Your task to perform on an android device: add a contact Image 0: 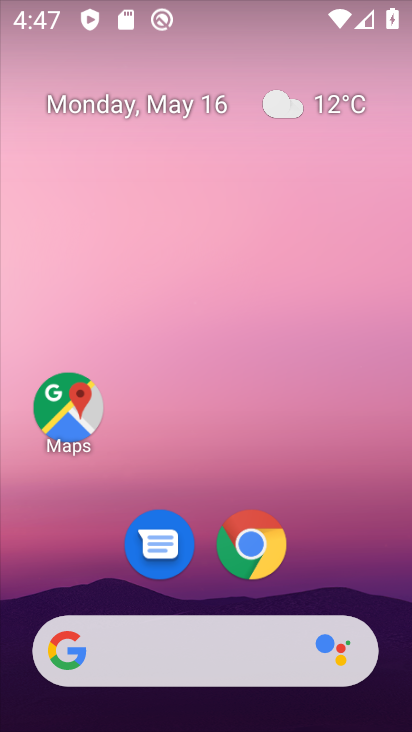
Step 0: drag from (332, 571) to (248, 12)
Your task to perform on an android device: add a contact Image 1: 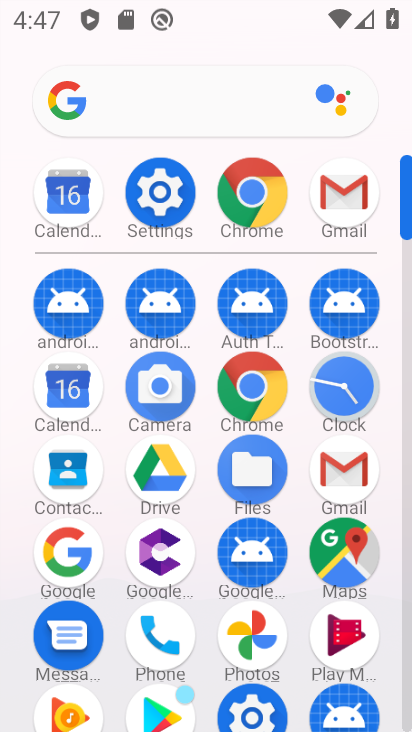
Step 1: drag from (213, 524) to (208, 342)
Your task to perform on an android device: add a contact Image 2: 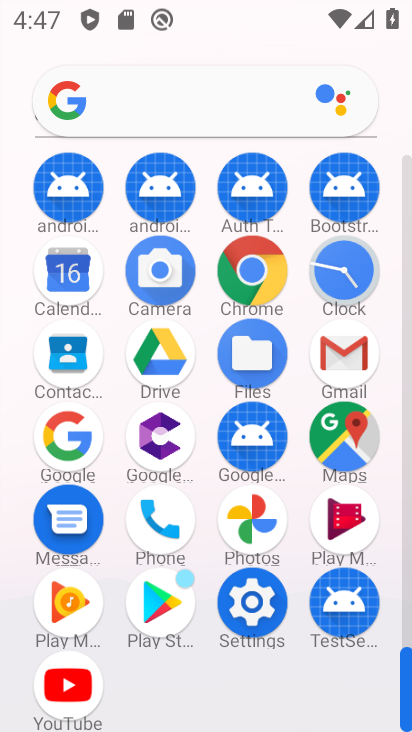
Step 2: click (66, 352)
Your task to perform on an android device: add a contact Image 3: 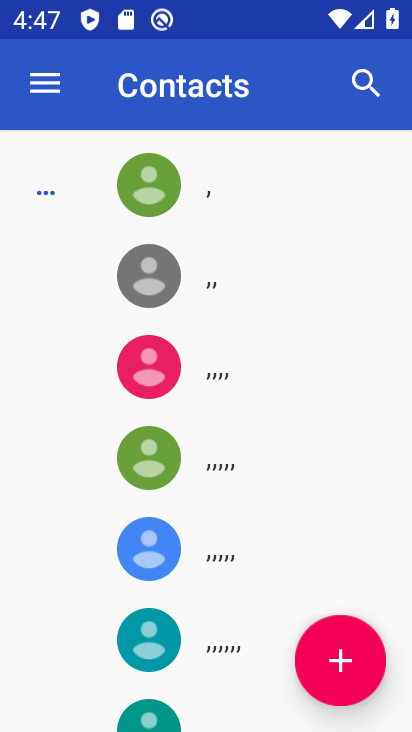
Step 3: click (339, 663)
Your task to perform on an android device: add a contact Image 4: 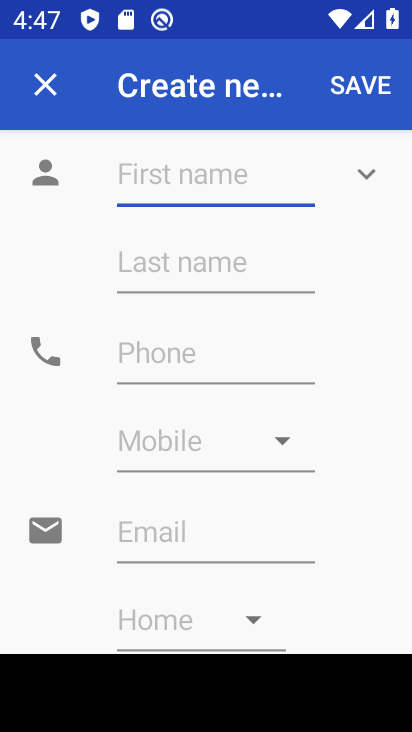
Step 4: click (230, 190)
Your task to perform on an android device: add a contact Image 5: 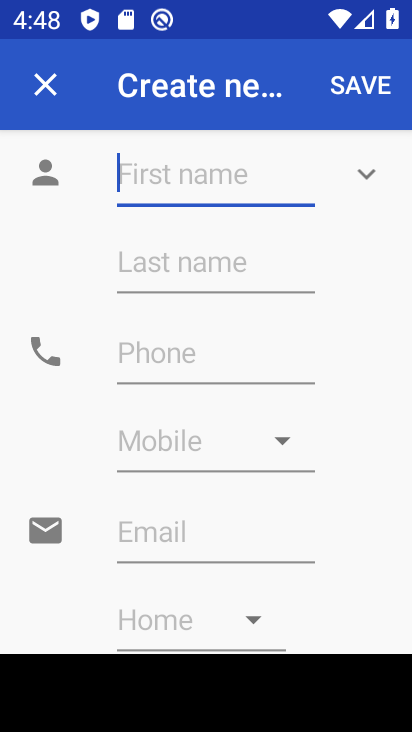
Step 5: type "Arpana"
Your task to perform on an android device: add a contact Image 6: 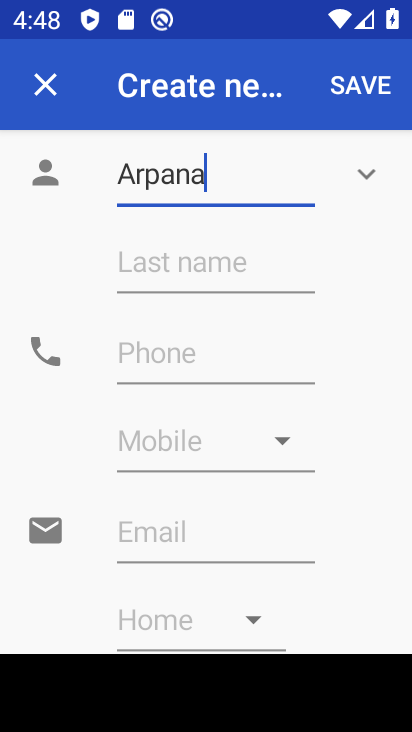
Step 6: click (190, 271)
Your task to perform on an android device: add a contact Image 7: 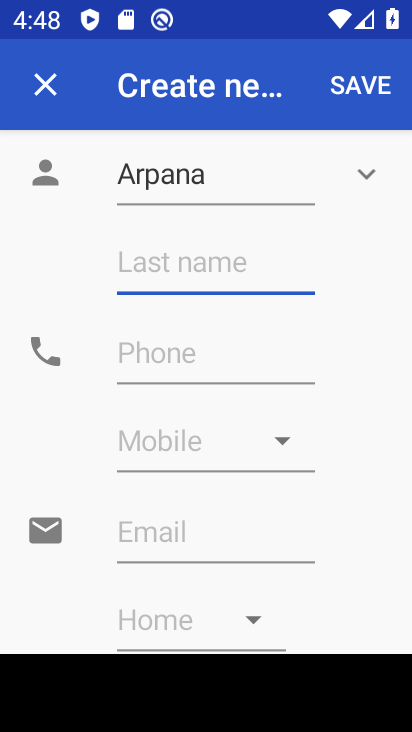
Step 7: type "Sharma"
Your task to perform on an android device: add a contact Image 8: 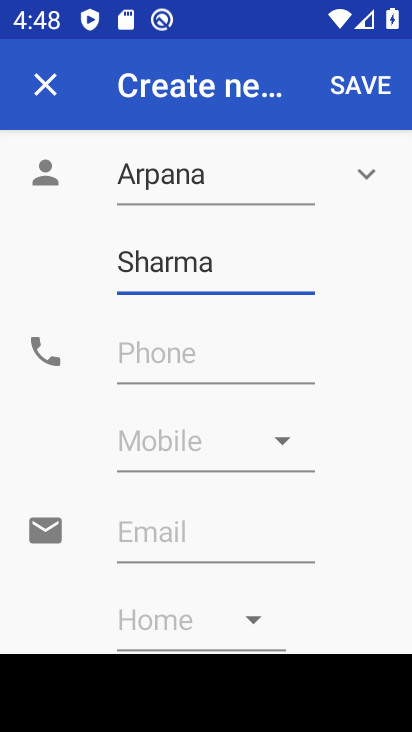
Step 8: click (212, 373)
Your task to perform on an android device: add a contact Image 9: 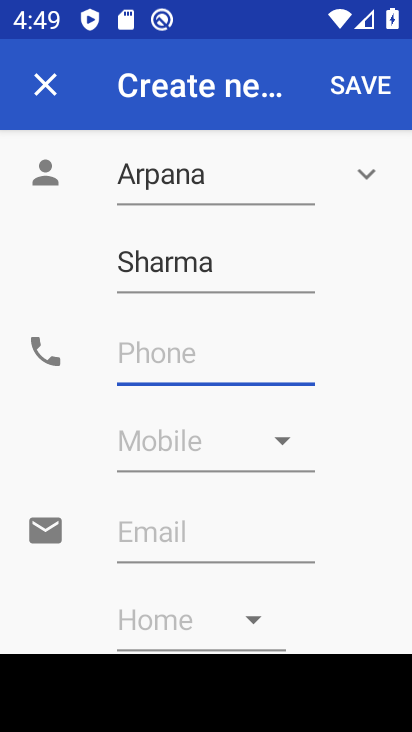
Step 9: type "09876543212"
Your task to perform on an android device: add a contact Image 10: 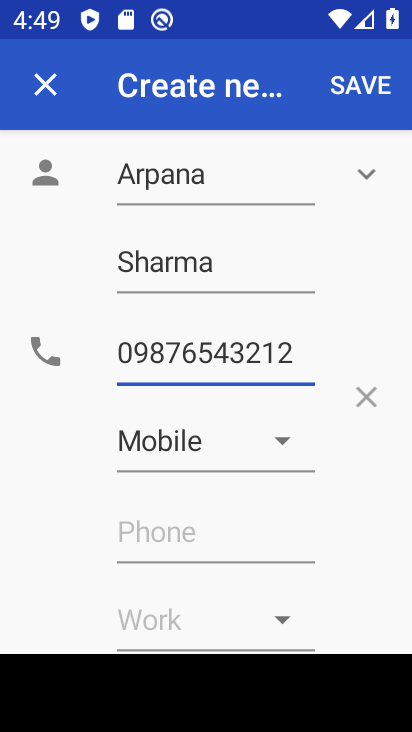
Step 10: click (349, 88)
Your task to perform on an android device: add a contact Image 11: 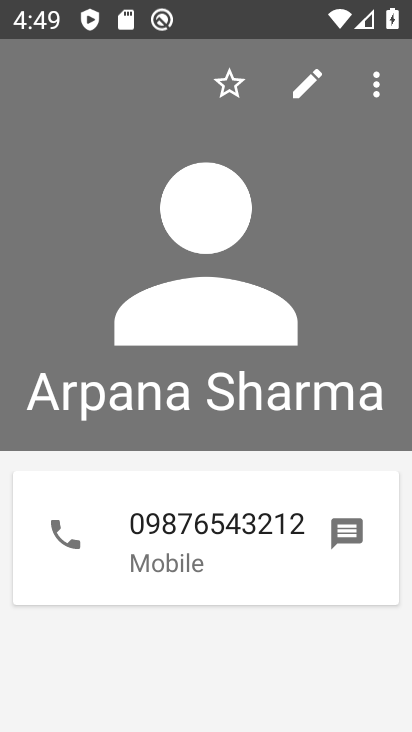
Step 11: task complete